Your task to perform on an android device: Open calendar and show me the third week of next month Image 0: 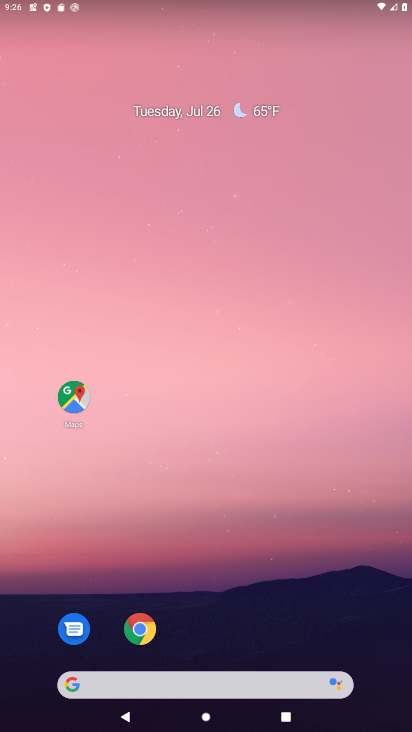
Step 0: drag from (301, 561) to (291, 16)
Your task to perform on an android device: Open calendar and show me the third week of next month Image 1: 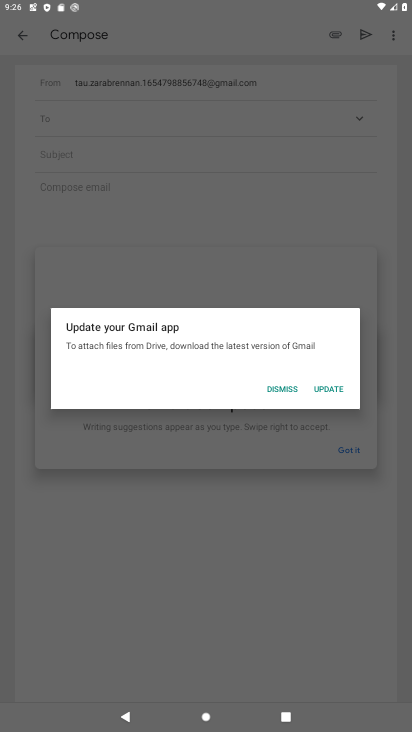
Step 1: click (346, 208)
Your task to perform on an android device: Open calendar and show me the third week of next month Image 2: 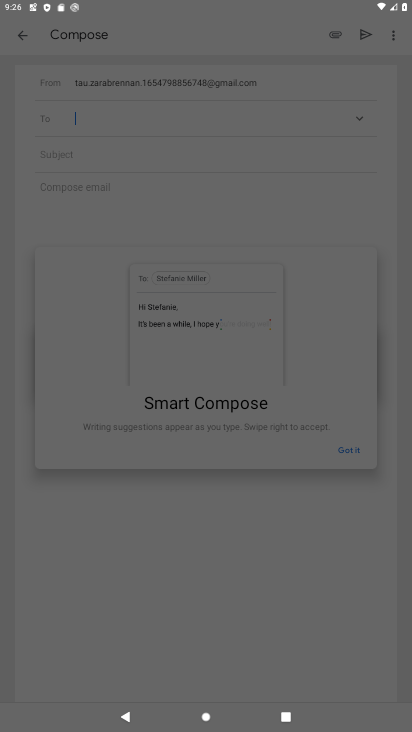
Step 2: press home button
Your task to perform on an android device: Open calendar and show me the third week of next month Image 3: 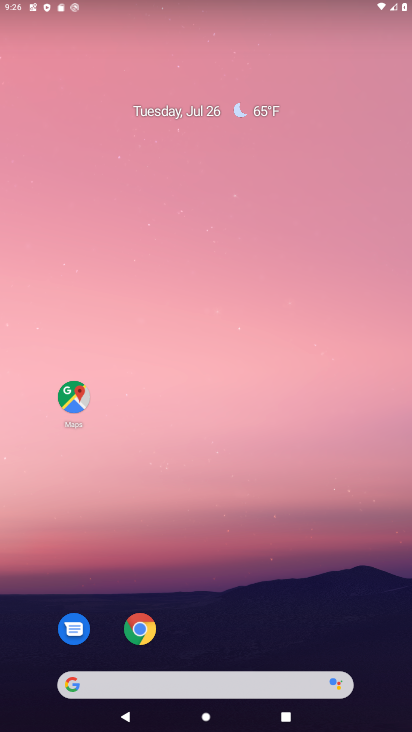
Step 3: drag from (278, 587) to (219, 47)
Your task to perform on an android device: Open calendar and show me the third week of next month Image 4: 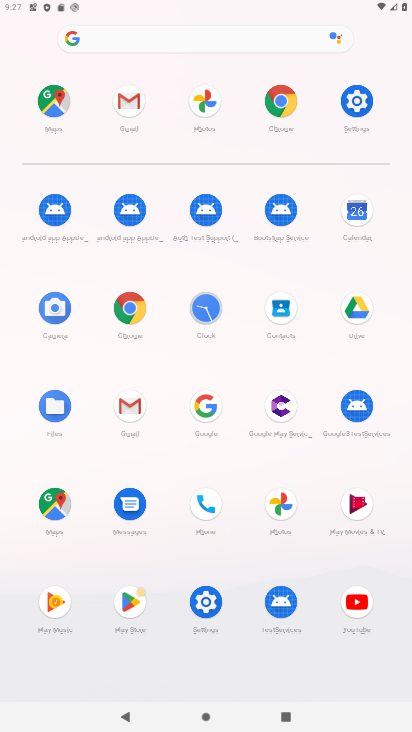
Step 4: click (362, 205)
Your task to perform on an android device: Open calendar and show me the third week of next month Image 5: 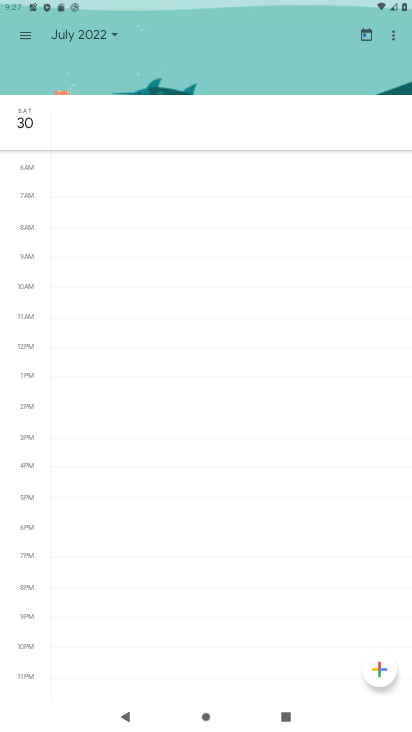
Step 5: click (71, 31)
Your task to perform on an android device: Open calendar and show me the third week of next month Image 6: 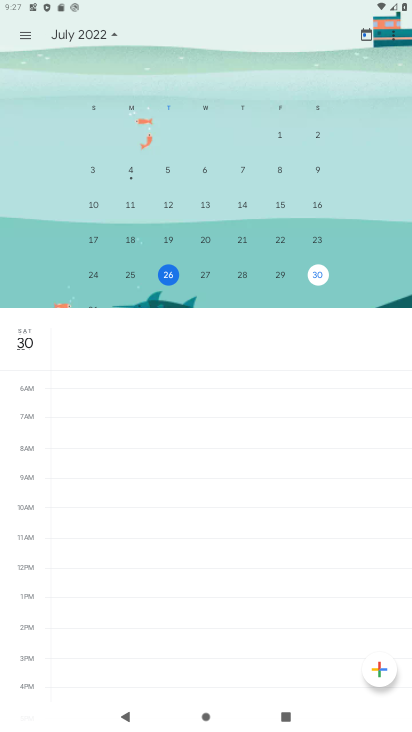
Step 6: drag from (308, 231) to (7, 203)
Your task to perform on an android device: Open calendar and show me the third week of next month Image 7: 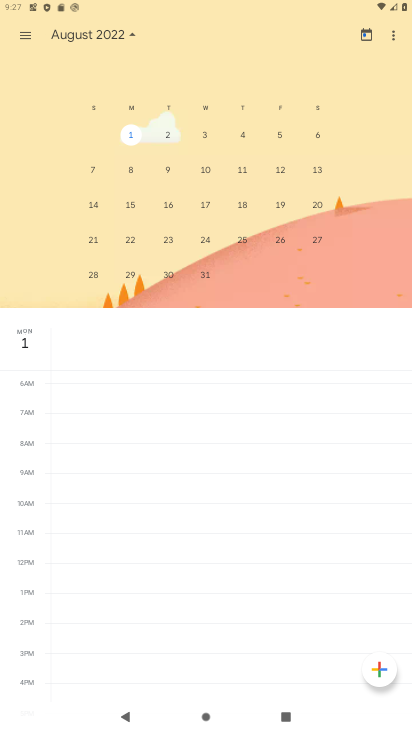
Step 7: click (130, 205)
Your task to perform on an android device: Open calendar and show me the third week of next month Image 8: 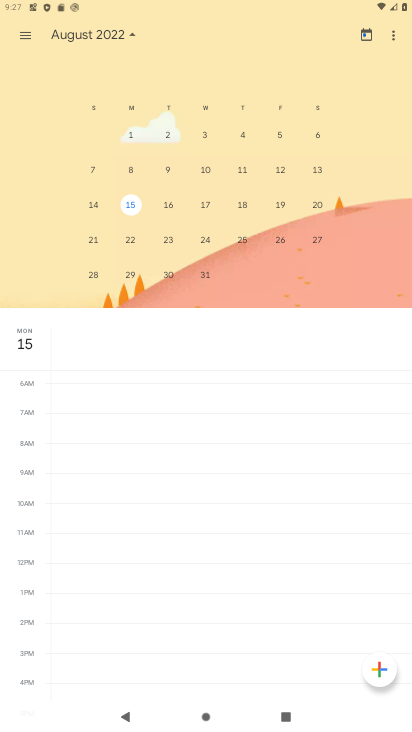
Step 8: click (30, 29)
Your task to perform on an android device: Open calendar and show me the third week of next month Image 9: 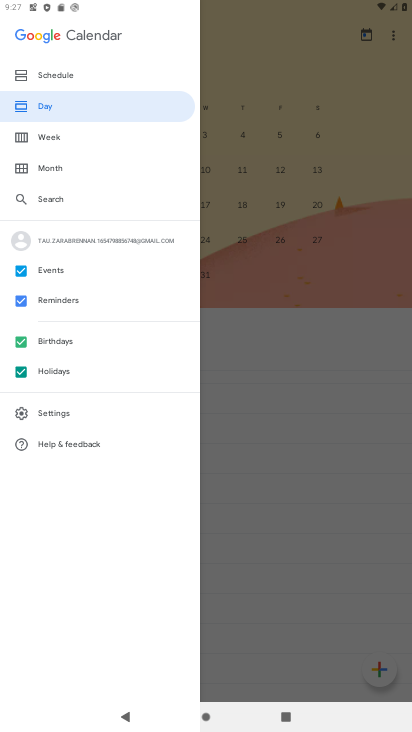
Step 9: click (60, 139)
Your task to perform on an android device: Open calendar and show me the third week of next month Image 10: 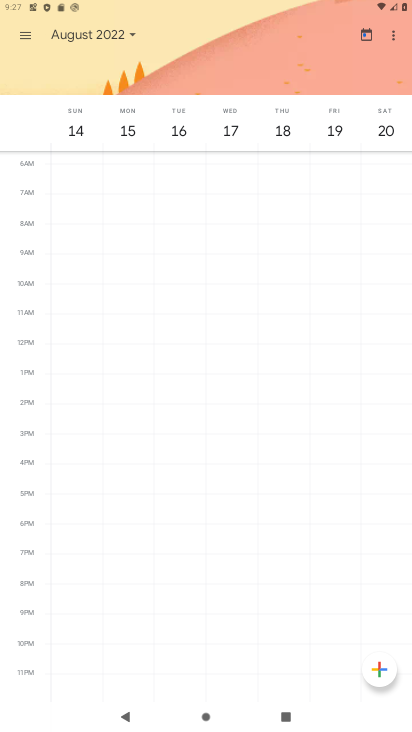
Step 10: task complete